Your task to perform on an android device: Check the news Image 0: 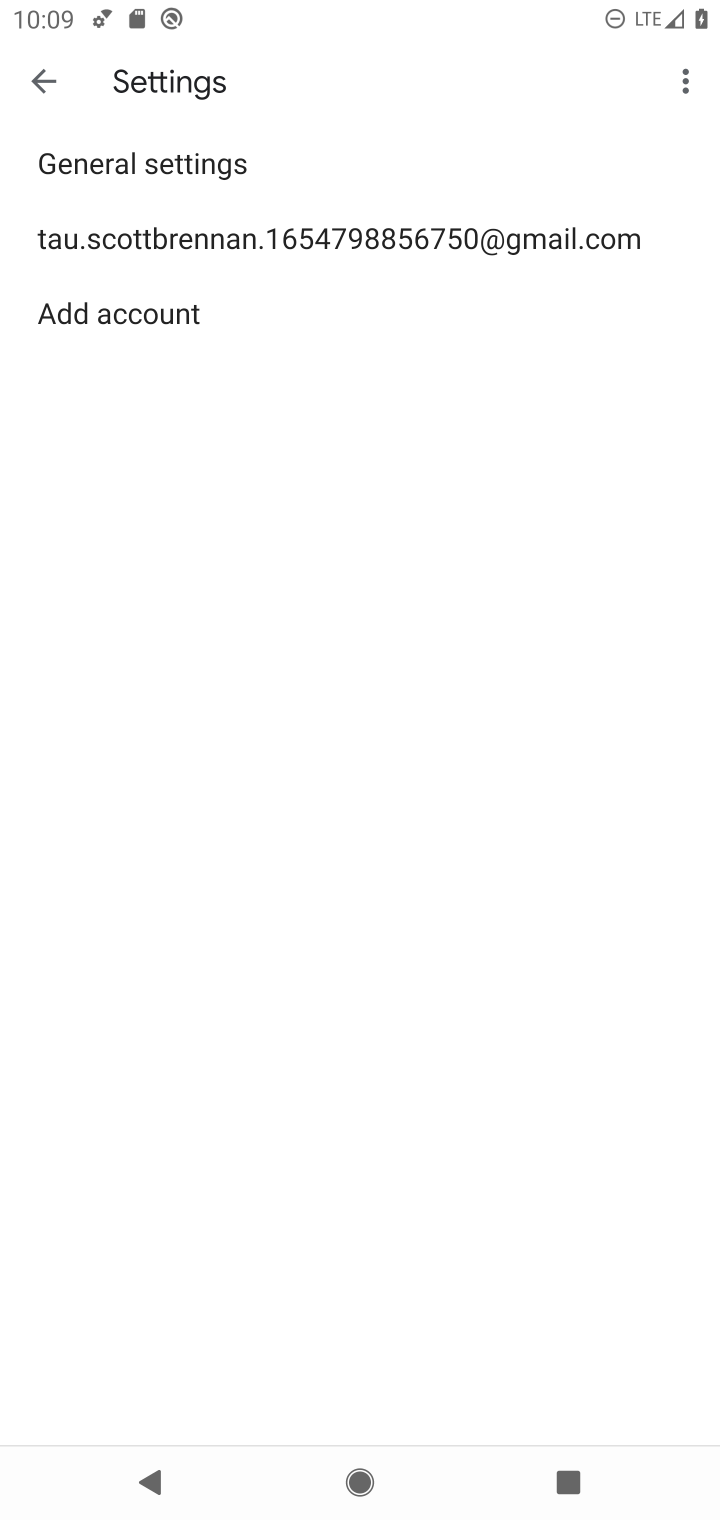
Step 0: press home button
Your task to perform on an android device: Check the news Image 1: 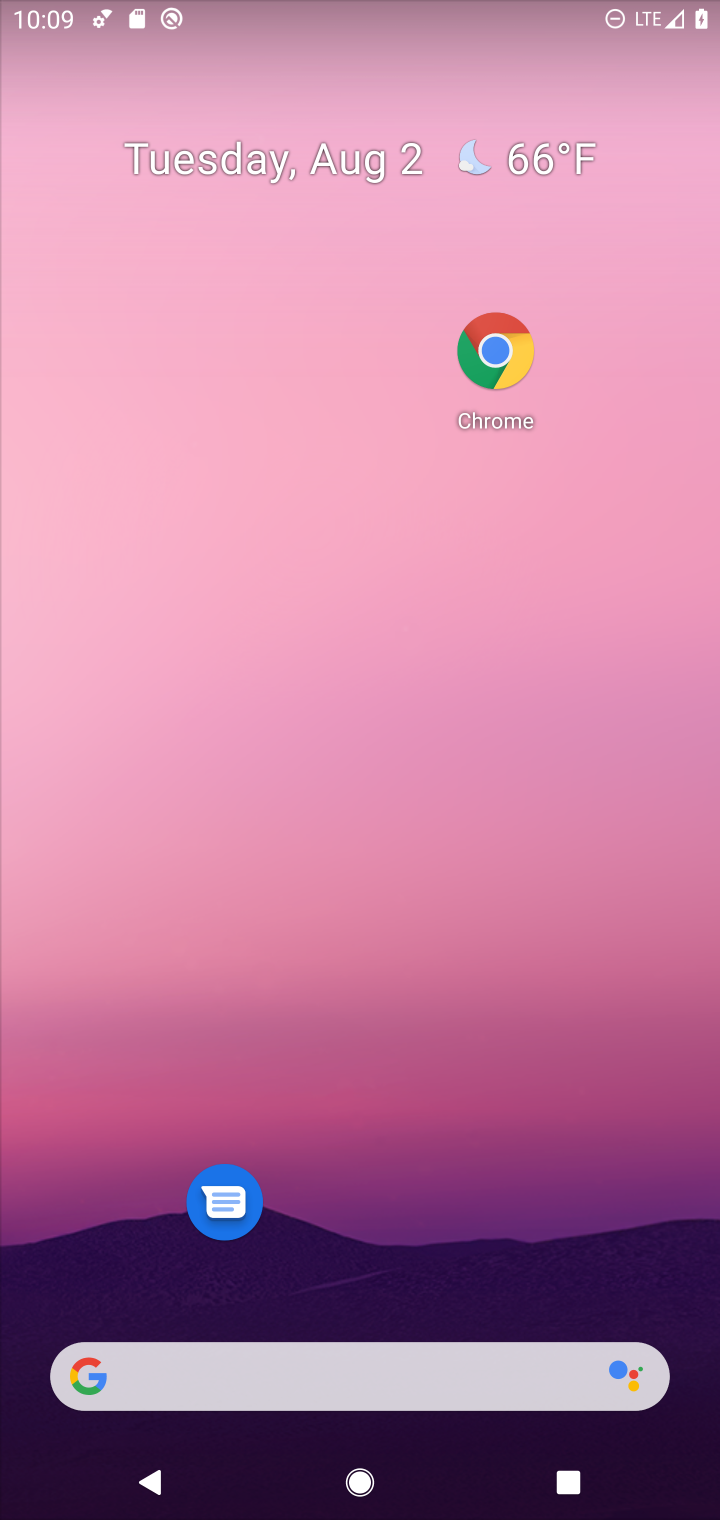
Step 1: click (207, 1370)
Your task to perform on an android device: Check the news Image 2: 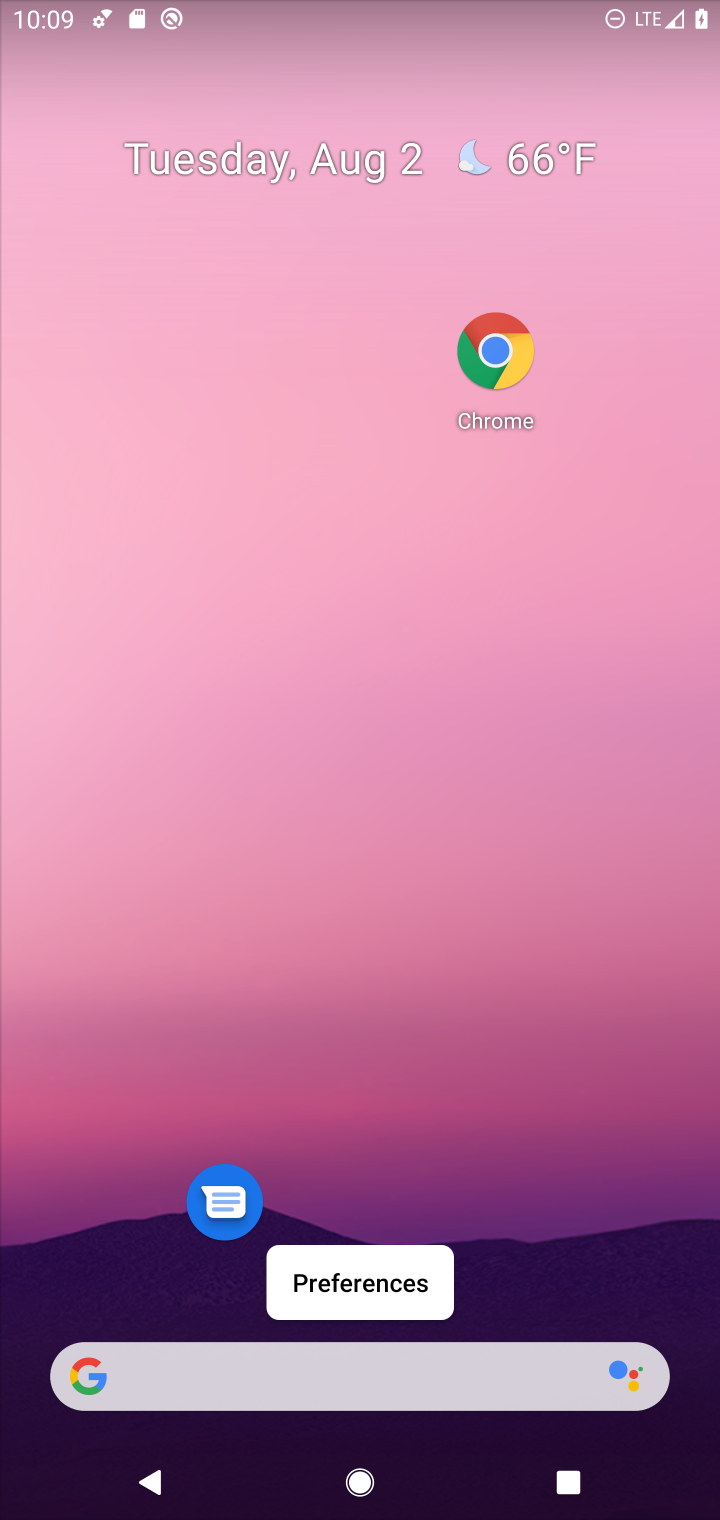
Step 2: click (233, 1388)
Your task to perform on an android device: Check the news Image 3: 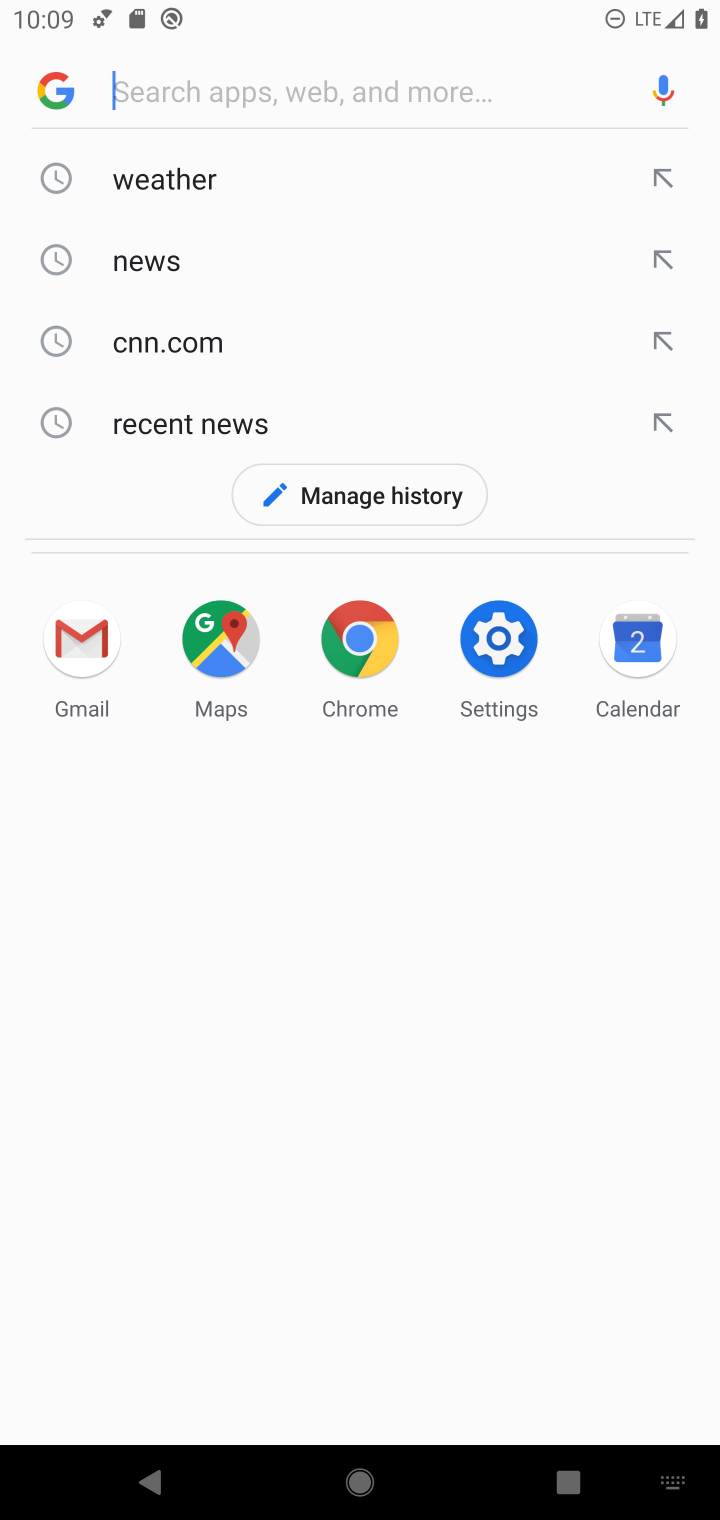
Step 3: click (141, 256)
Your task to perform on an android device: Check the news Image 4: 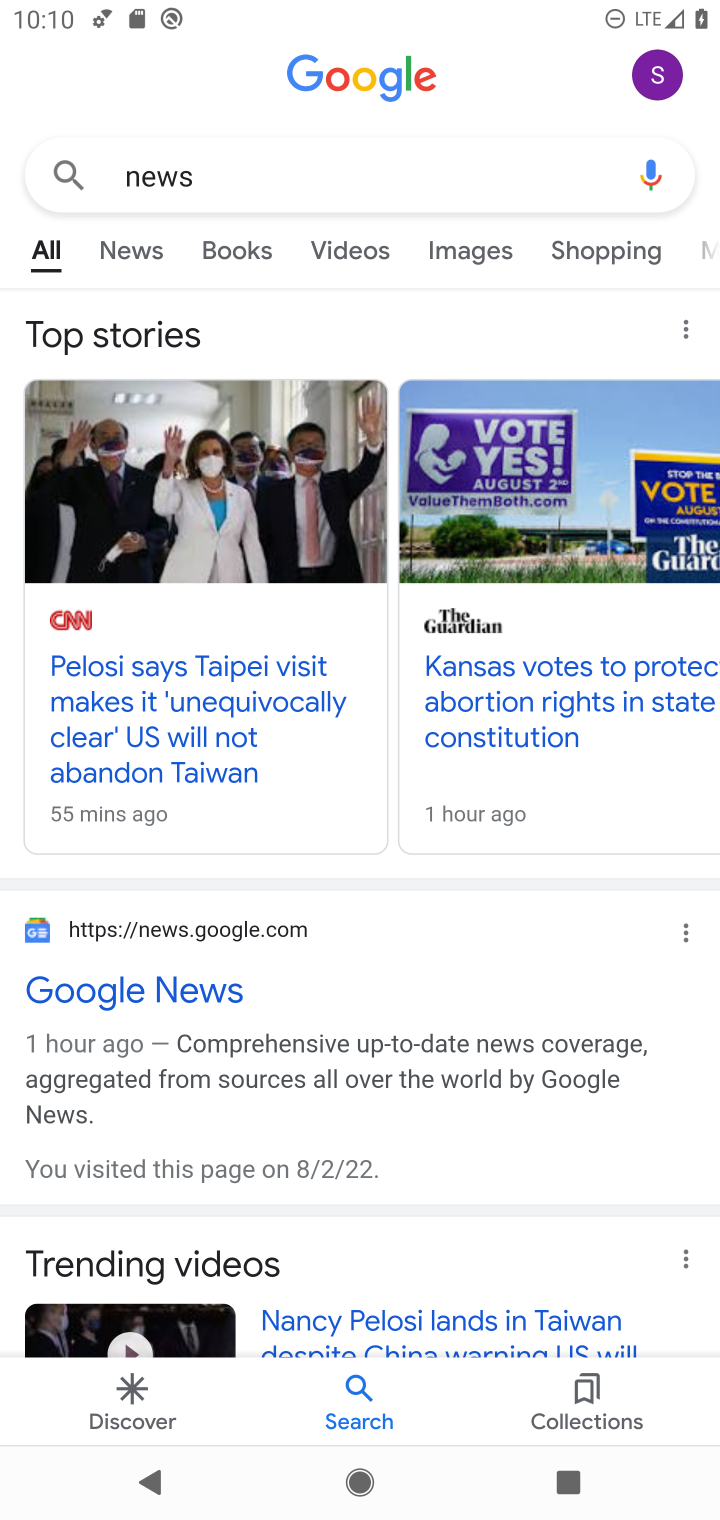
Step 4: click (132, 255)
Your task to perform on an android device: Check the news Image 5: 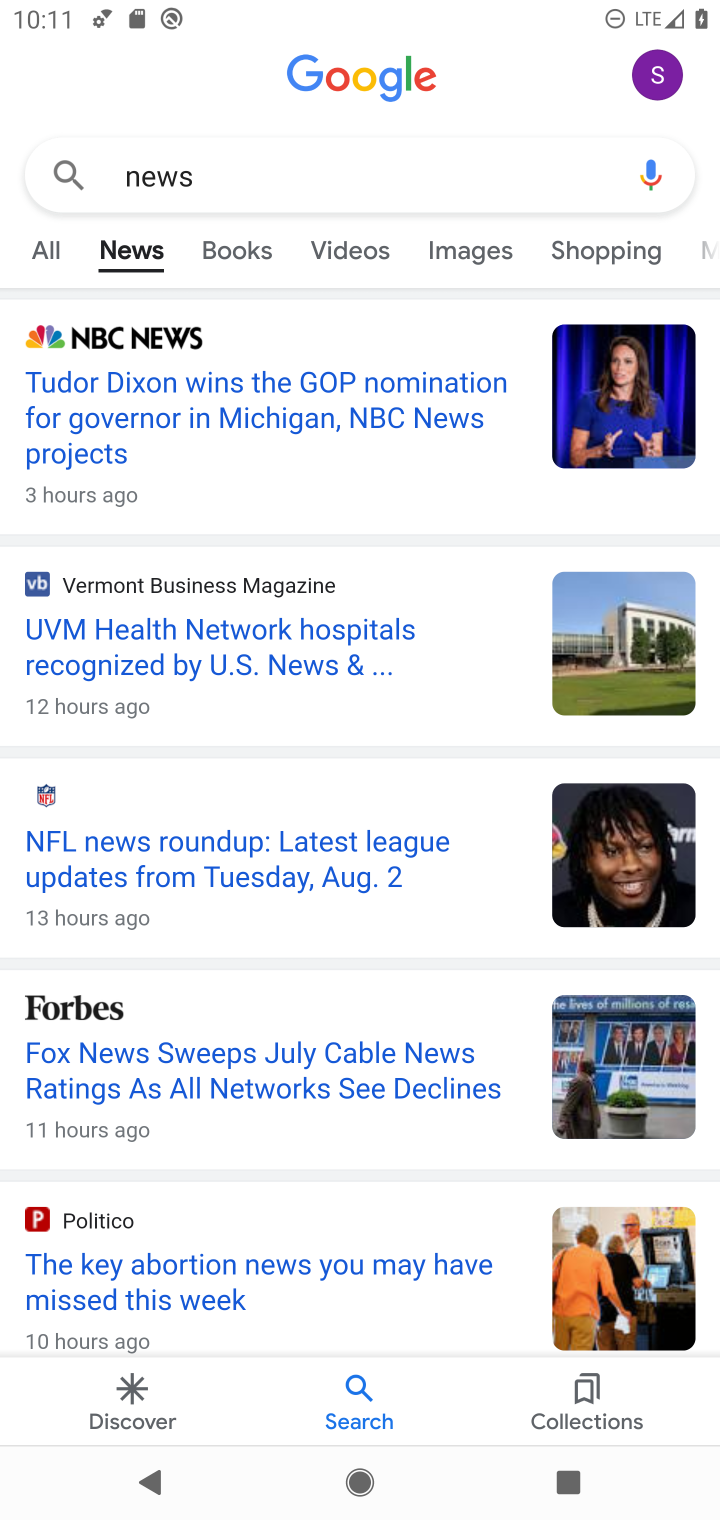
Step 5: task complete